Your task to perform on an android device: turn on notifications settings in the gmail app Image 0: 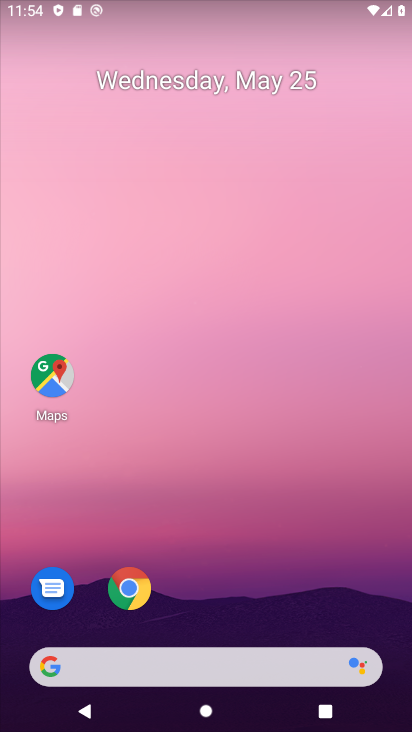
Step 0: drag from (184, 652) to (308, 83)
Your task to perform on an android device: turn on notifications settings in the gmail app Image 1: 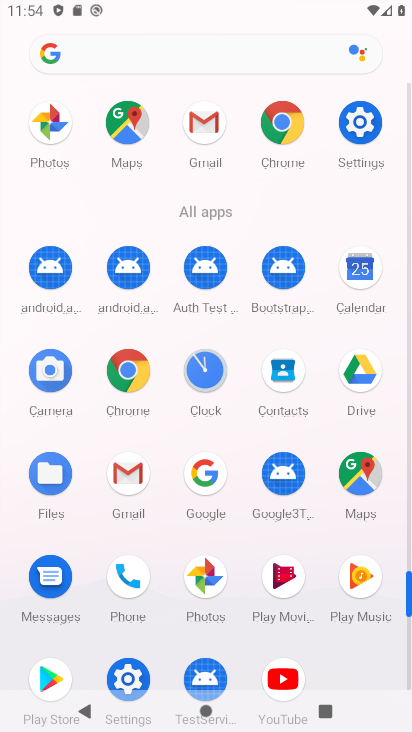
Step 1: click (135, 487)
Your task to perform on an android device: turn on notifications settings in the gmail app Image 2: 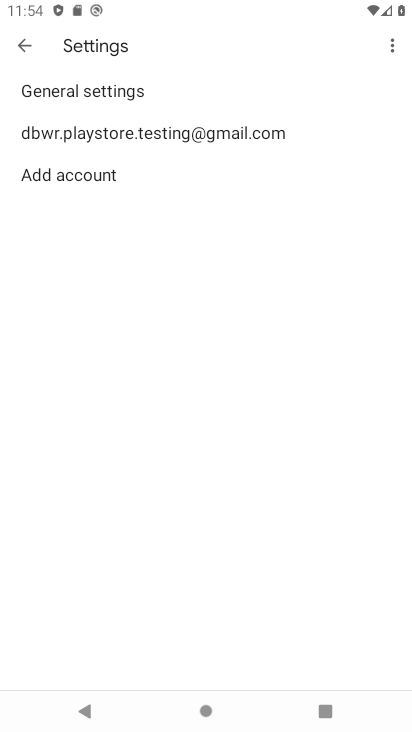
Step 2: click (220, 139)
Your task to perform on an android device: turn on notifications settings in the gmail app Image 3: 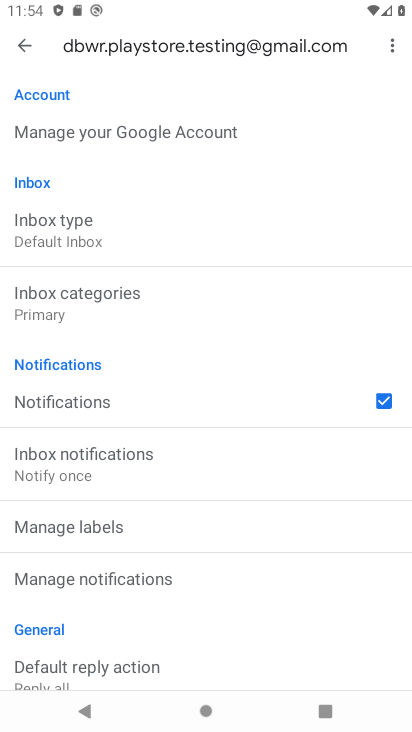
Step 3: drag from (170, 635) to (260, 374)
Your task to perform on an android device: turn on notifications settings in the gmail app Image 4: 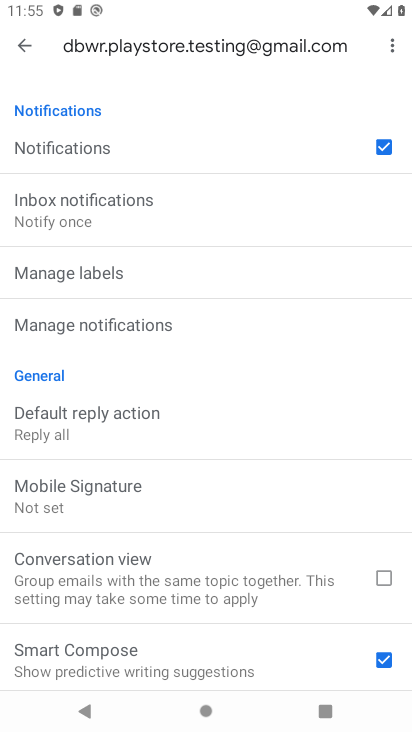
Step 4: click (194, 330)
Your task to perform on an android device: turn on notifications settings in the gmail app Image 5: 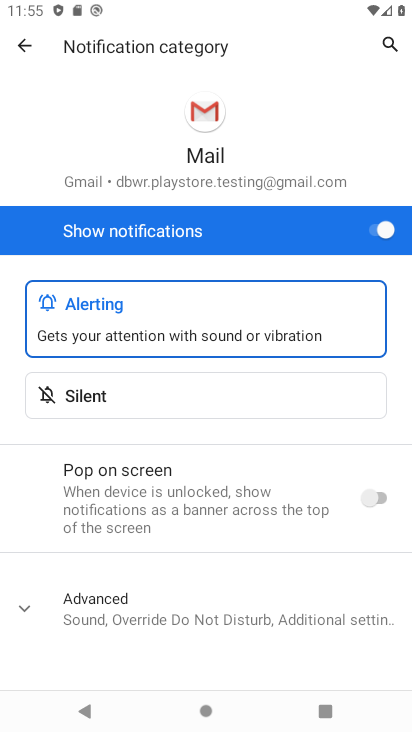
Step 5: task complete